Your task to perform on an android device: What's on my calendar today? Image 0: 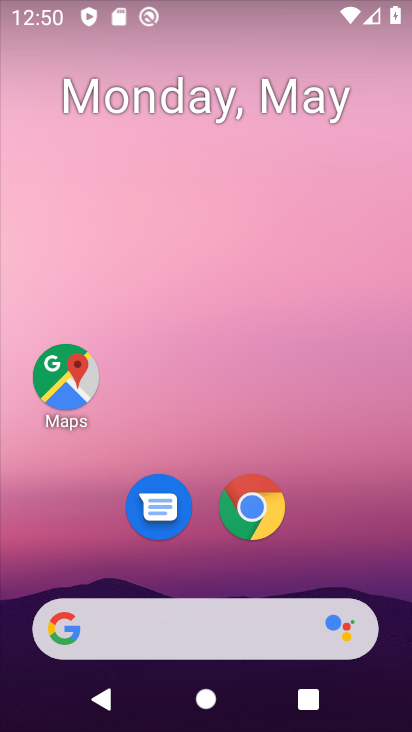
Step 0: drag from (235, 718) to (212, 52)
Your task to perform on an android device: What's on my calendar today? Image 1: 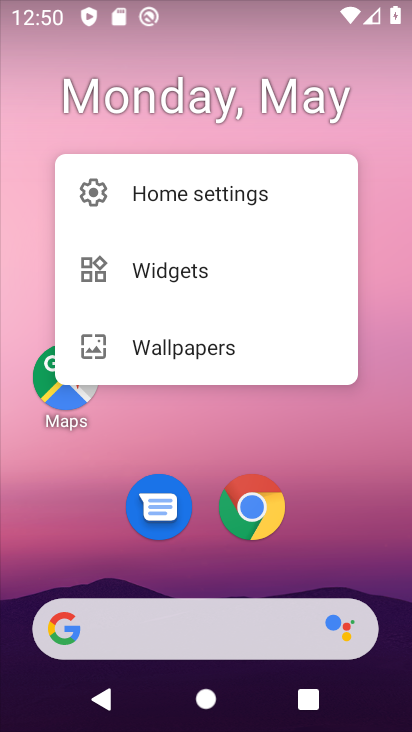
Step 1: click (230, 436)
Your task to perform on an android device: What's on my calendar today? Image 2: 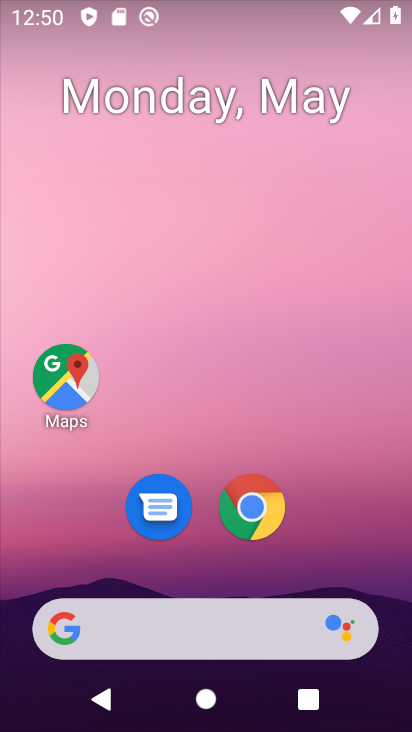
Step 2: drag from (235, 707) to (235, 250)
Your task to perform on an android device: What's on my calendar today? Image 3: 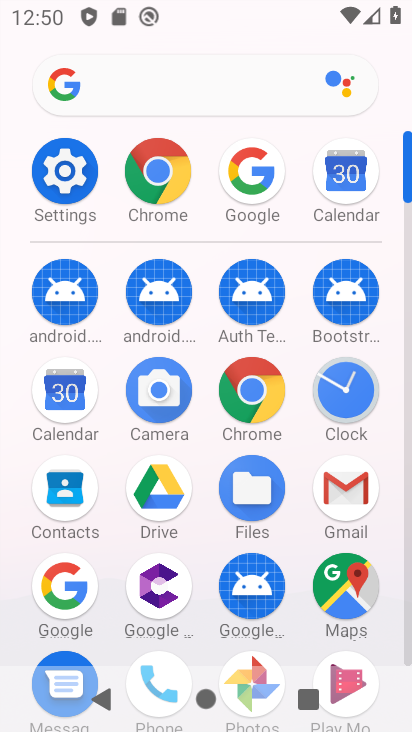
Step 3: drag from (303, 589) to (281, 163)
Your task to perform on an android device: What's on my calendar today? Image 4: 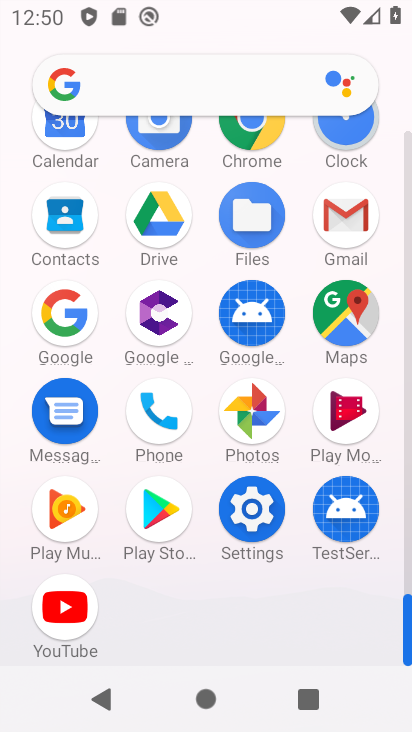
Step 4: click (69, 136)
Your task to perform on an android device: What's on my calendar today? Image 5: 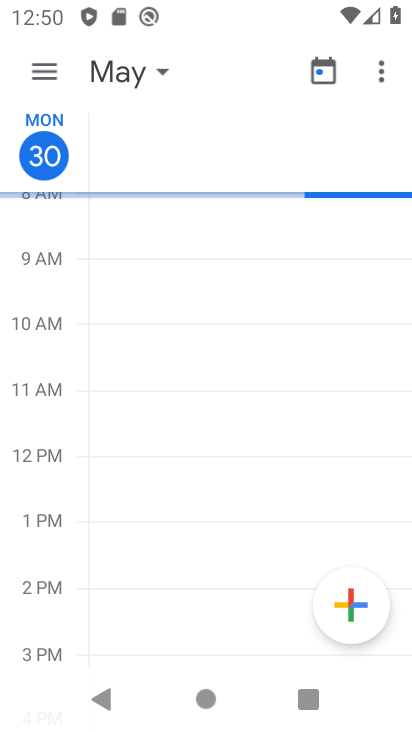
Step 5: click (48, 154)
Your task to perform on an android device: What's on my calendar today? Image 6: 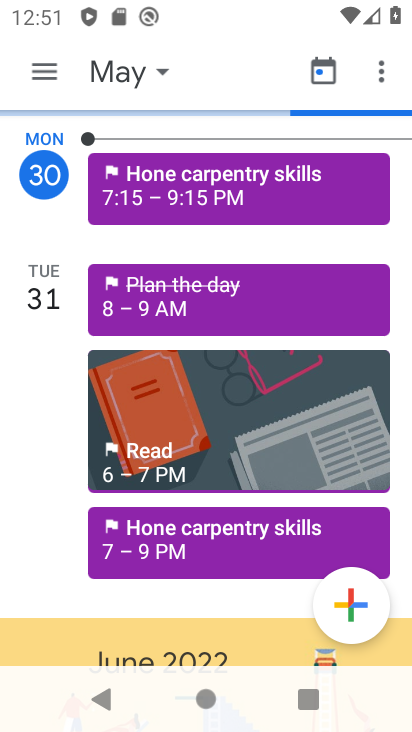
Step 6: task complete